Your task to perform on an android device: clear all cookies in the chrome app Image 0: 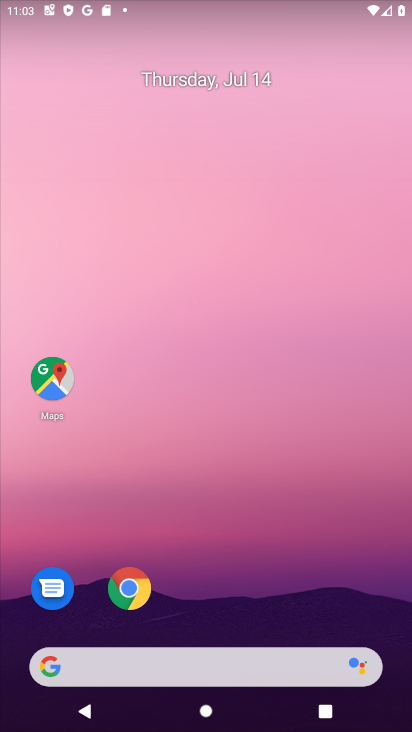
Step 0: click (132, 584)
Your task to perform on an android device: clear all cookies in the chrome app Image 1: 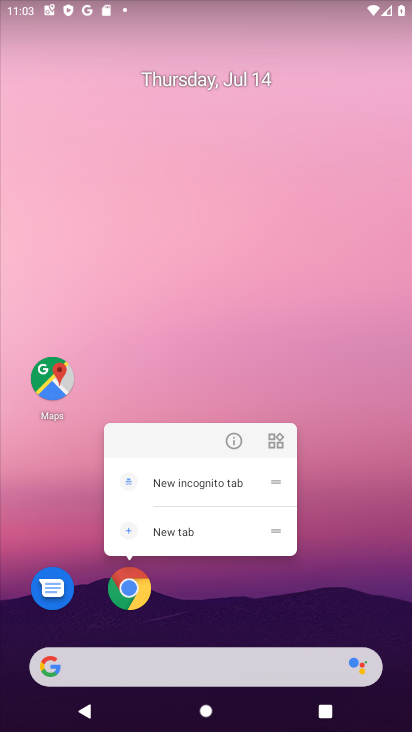
Step 1: click (111, 584)
Your task to perform on an android device: clear all cookies in the chrome app Image 2: 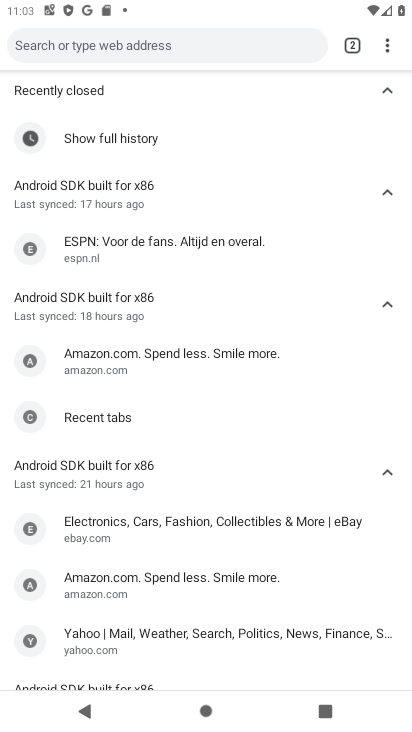
Step 2: drag from (384, 55) to (322, 387)
Your task to perform on an android device: clear all cookies in the chrome app Image 3: 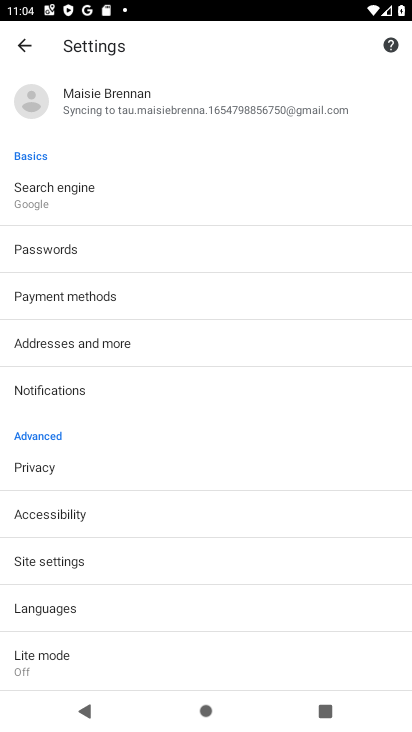
Step 3: click (39, 462)
Your task to perform on an android device: clear all cookies in the chrome app Image 4: 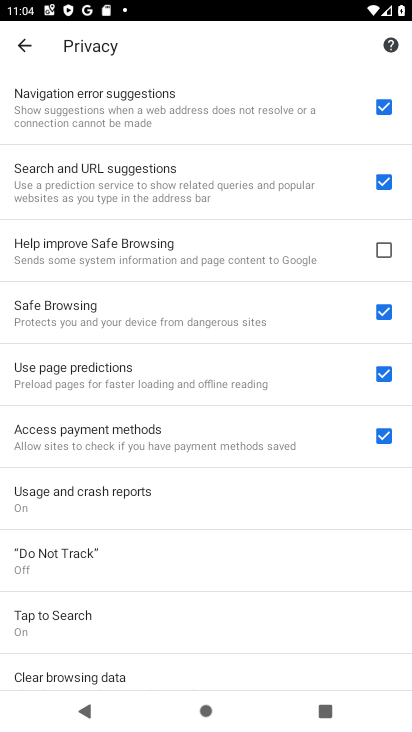
Step 4: drag from (138, 590) to (346, 45)
Your task to perform on an android device: clear all cookies in the chrome app Image 5: 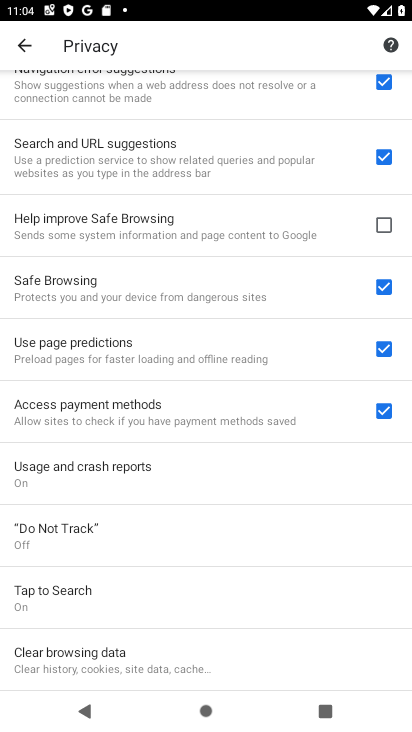
Step 5: click (141, 657)
Your task to perform on an android device: clear all cookies in the chrome app Image 6: 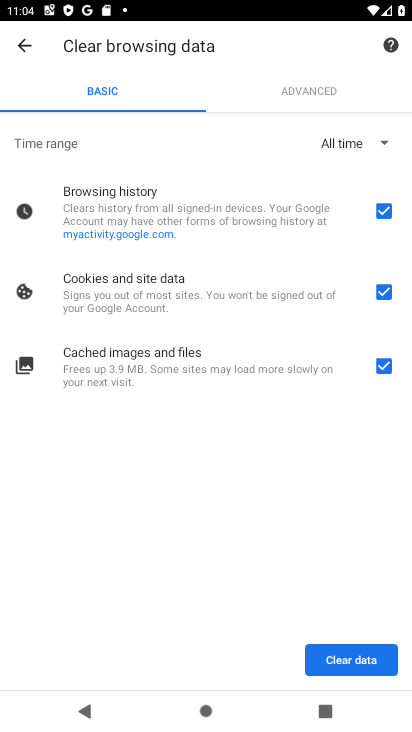
Step 6: click (388, 360)
Your task to perform on an android device: clear all cookies in the chrome app Image 7: 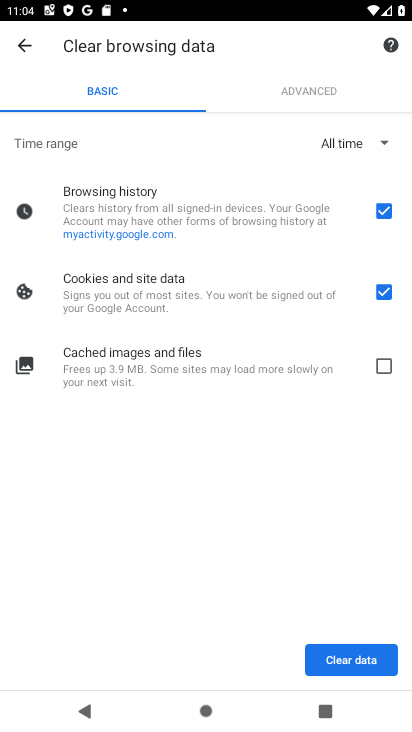
Step 7: click (389, 224)
Your task to perform on an android device: clear all cookies in the chrome app Image 8: 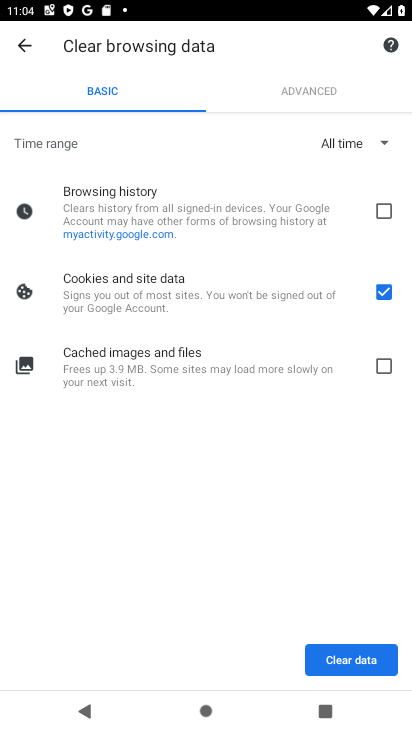
Step 8: click (347, 677)
Your task to perform on an android device: clear all cookies in the chrome app Image 9: 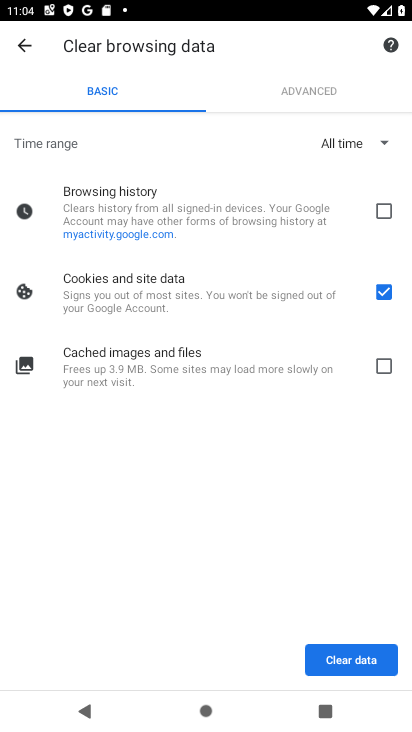
Step 9: click (356, 660)
Your task to perform on an android device: clear all cookies in the chrome app Image 10: 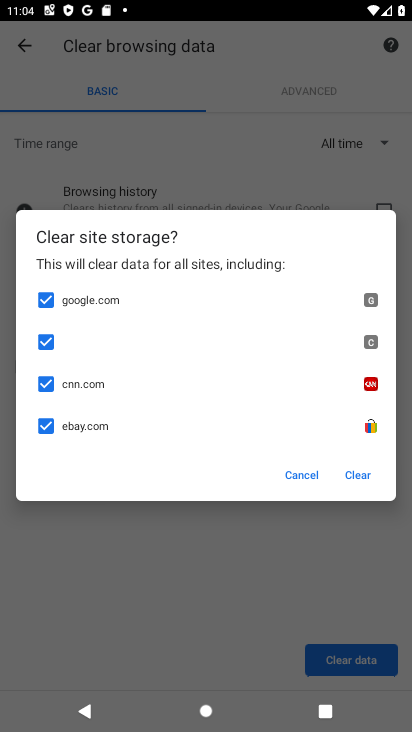
Step 10: click (353, 475)
Your task to perform on an android device: clear all cookies in the chrome app Image 11: 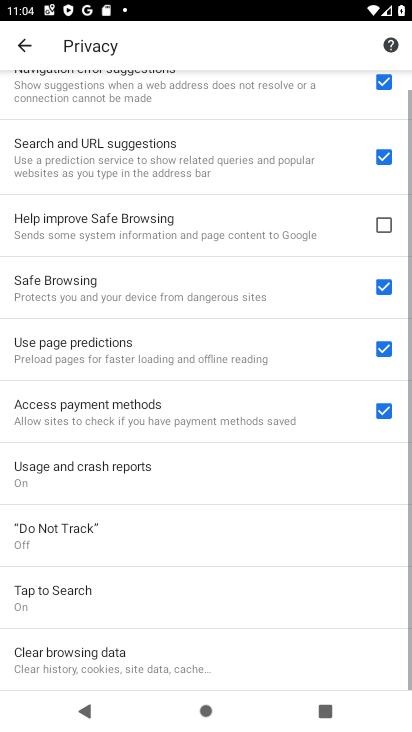
Step 11: task complete